Your task to perform on an android device: What is the recent news? Image 0: 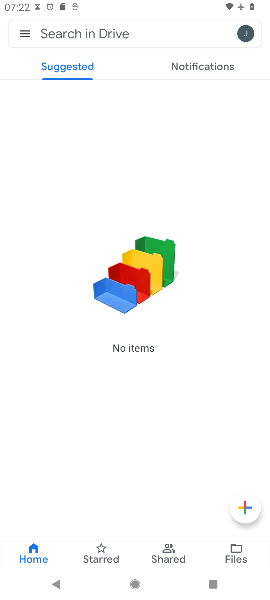
Step 0: press home button
Your task to perform on an android device: What is the recent news? Image 1: 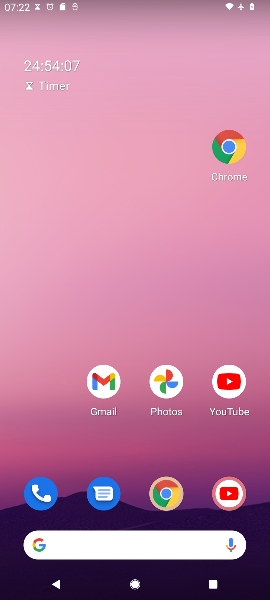
Step 1: click (38, 554)
Your task to perform on an android device: What is the recent news? Image 2: 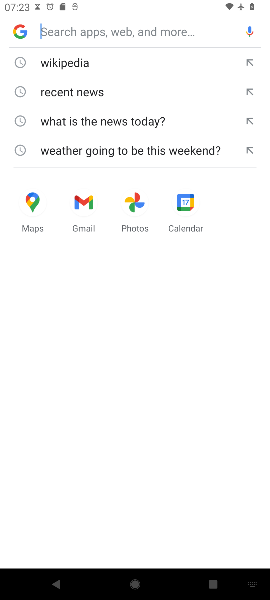
Step 2: click (72, 91)
Your task to perform on an android device: What is the recent news? Image 3: 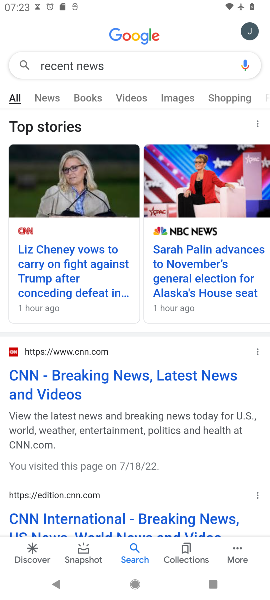
Step 3: task complete